Your task to perform on an android device: create a new album in the google photos Image 0: 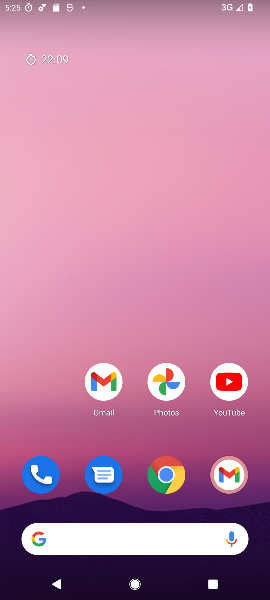
Step 0: press home button
Your task to perform on an android device: create a new album in the google photos Image 1: 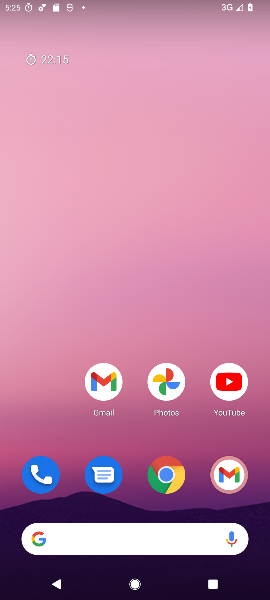
Step 1: drag from (67, 445) to (78, 160)
Your task to perform on an android device: create a new album in the google photos Image 2: 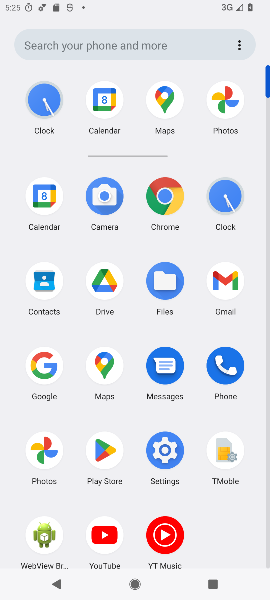
Step 2: click (41, 454)
Your task to perform on an android device: create a new album in the google photos Image 3: 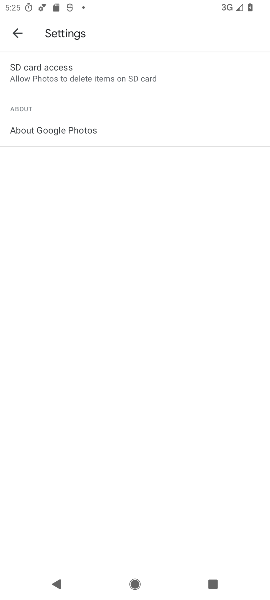
Step 3: press back button
Your task to perform on an android device: create a new album in the google photos Image 4: 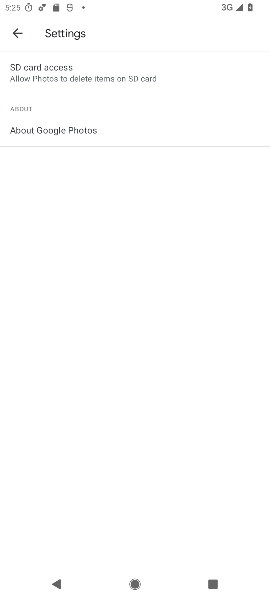
Step 4: press back button
Your task to perform on an android device: create a new album in the google photos Image 5: 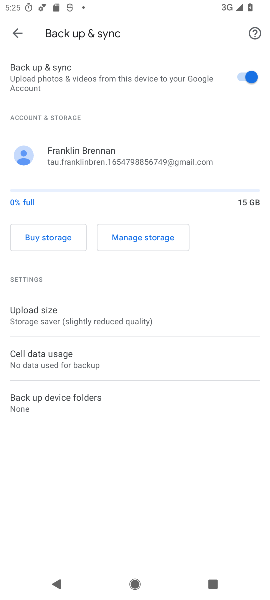
Step 5: press back button
Your task to perform on an android device: create a new album in the google photos Image 6: 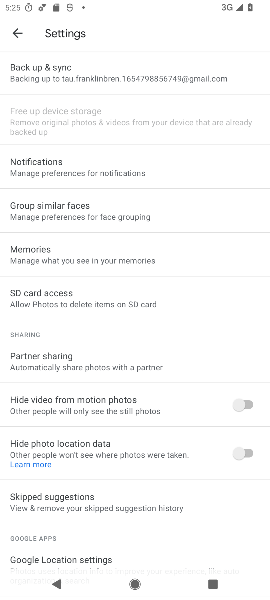
Step 6: press back button
Your task to perform on an android device: create a new album in the google photos Image 7: 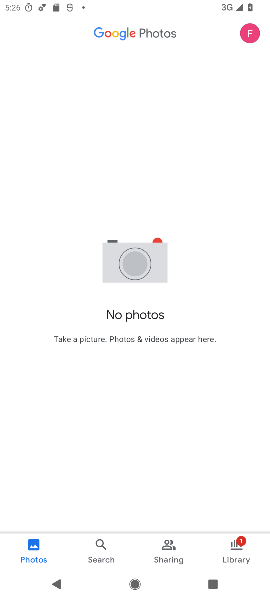
Step 7: click (240, 548)
Your task to perform on an android device: create a new album in the google photos Image 8: 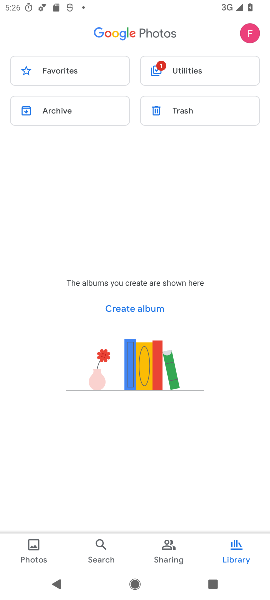
Step 8: click (120, 305)
Your task to perform on an android device: create a new album in the google photos Image 9: 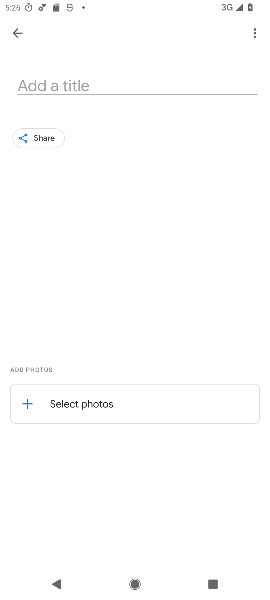
Step 9: click (123, 85)
Your task to perform on an android device: create a new album in the google photos Image 10: 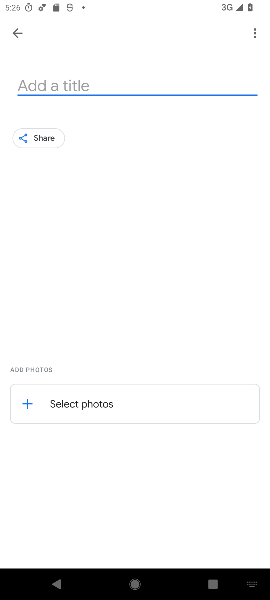
Step 10: type "fav"
Your task to perform on an android device: create a new album in the google photos Image 11: 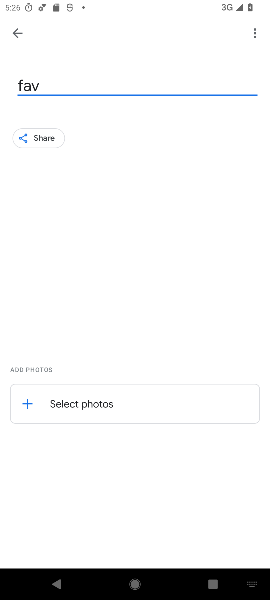
Step 11: click (107, 404)
Your task to perform on an android device: create a new album in the google photos Image 12: 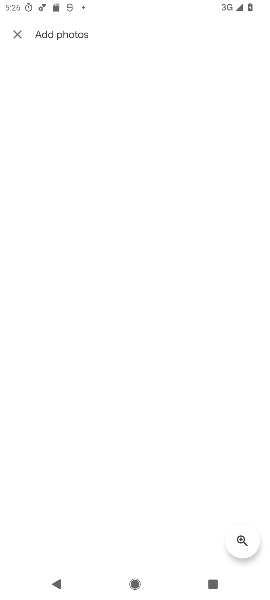
Step 12: task complete